Your task to perform on an android device: Open Google Chrome Image 0: 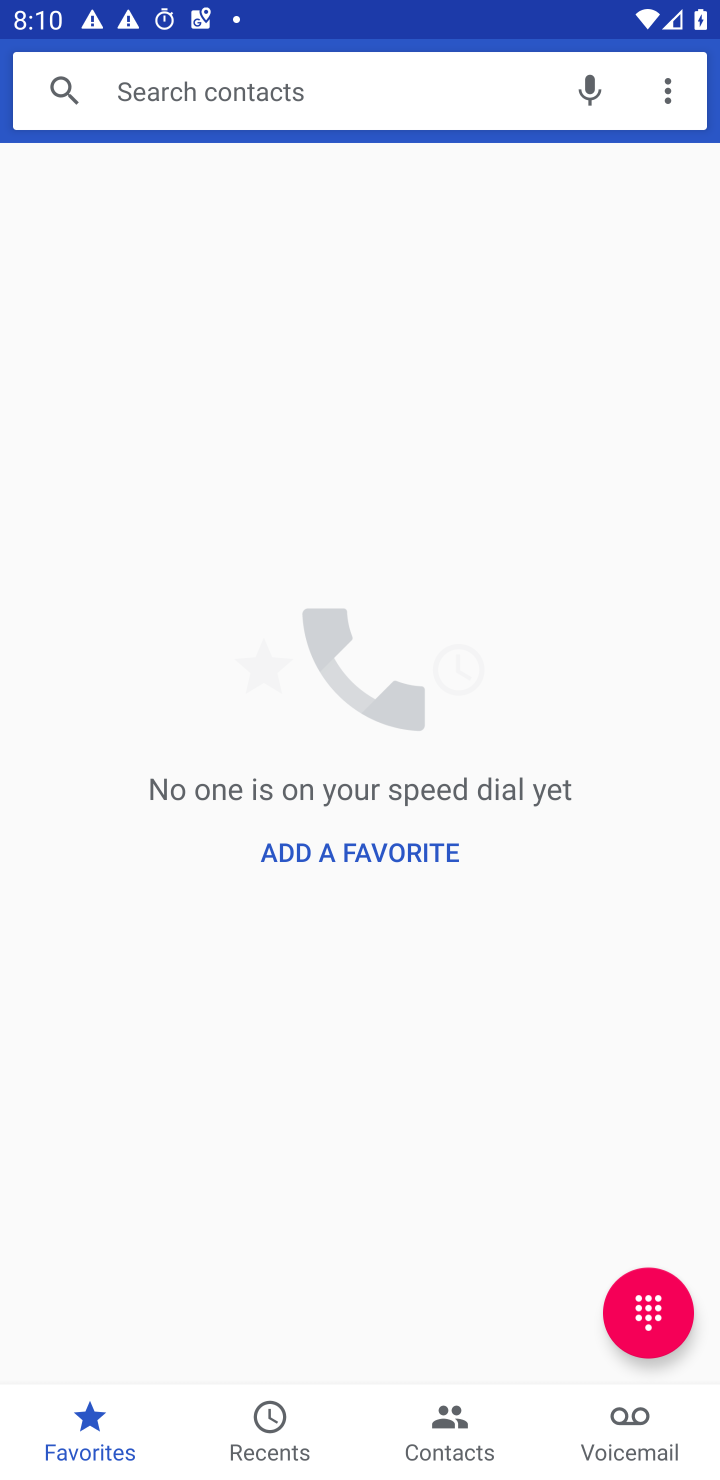
Step 0: click (486, 1402)
Your task to perform on an android device: Open Google Chrome Image 1: 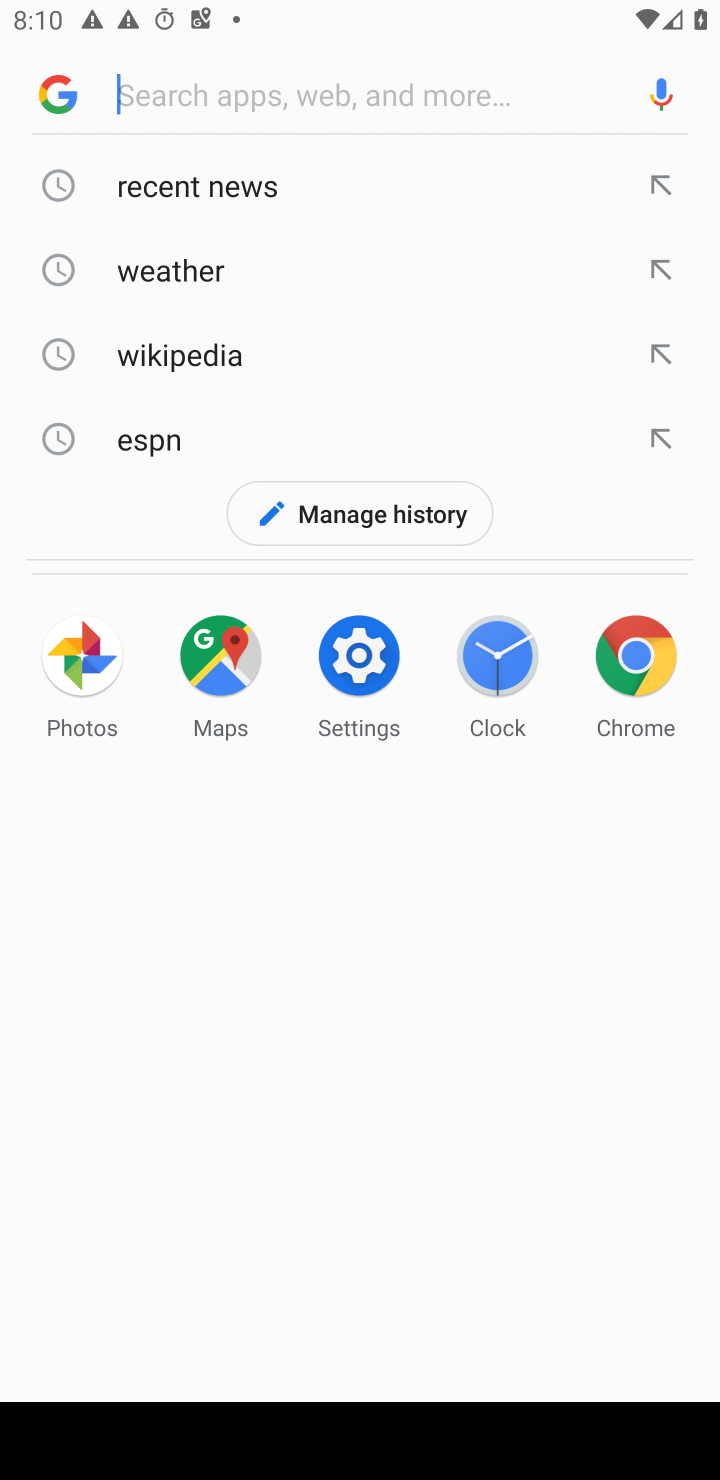
Step 1: press home button
Your task to perform on an android device: Open Google Chrome Image 2: 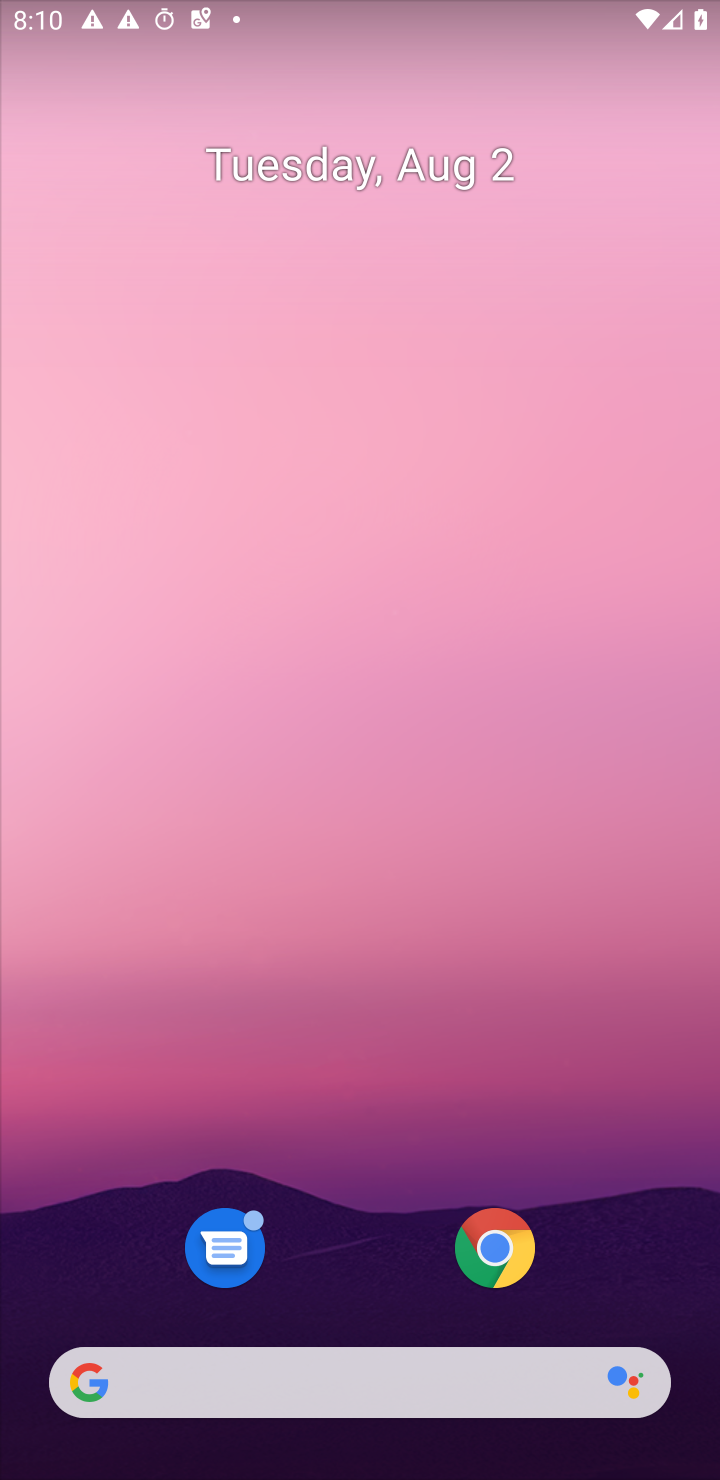
Step 2: drag from (336, 1289) to (509, 69)
Your task to perform on an android device: Open Google Chrome Image 3: 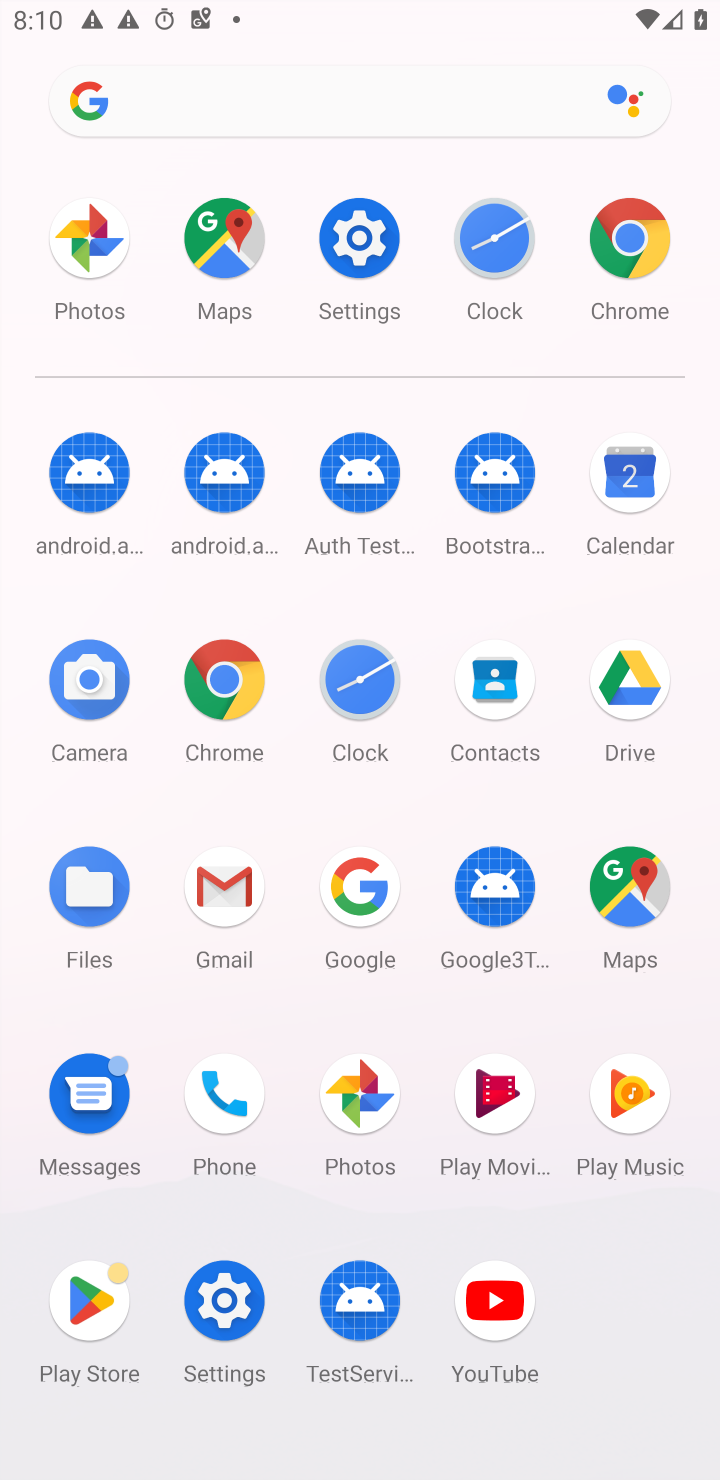
Step 3: drag from (283, 1115) to (711, 339)
Your task to perform on an android device: Open Google Chrome Image 4: 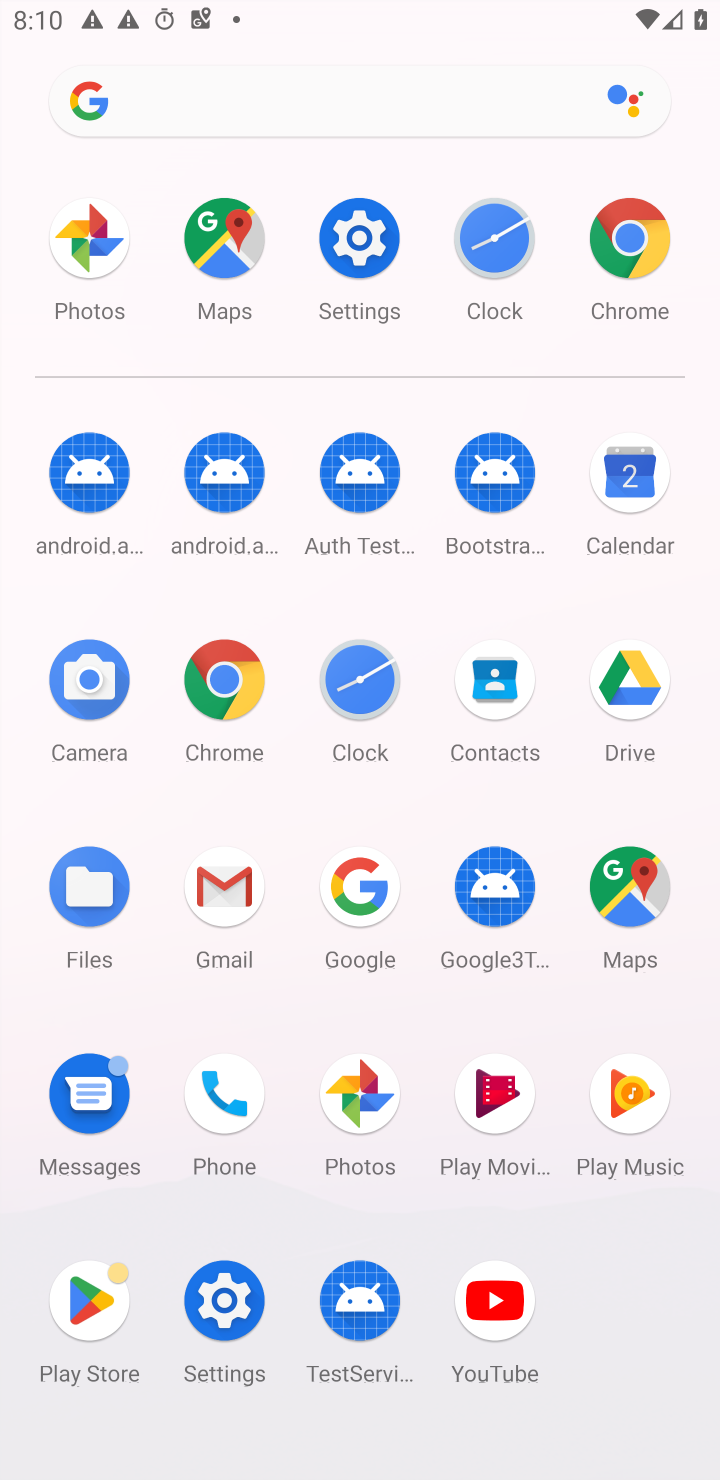
Step 4: click (636, 230)
Your task to perform on an android device: Open Google Chrome Image 5: 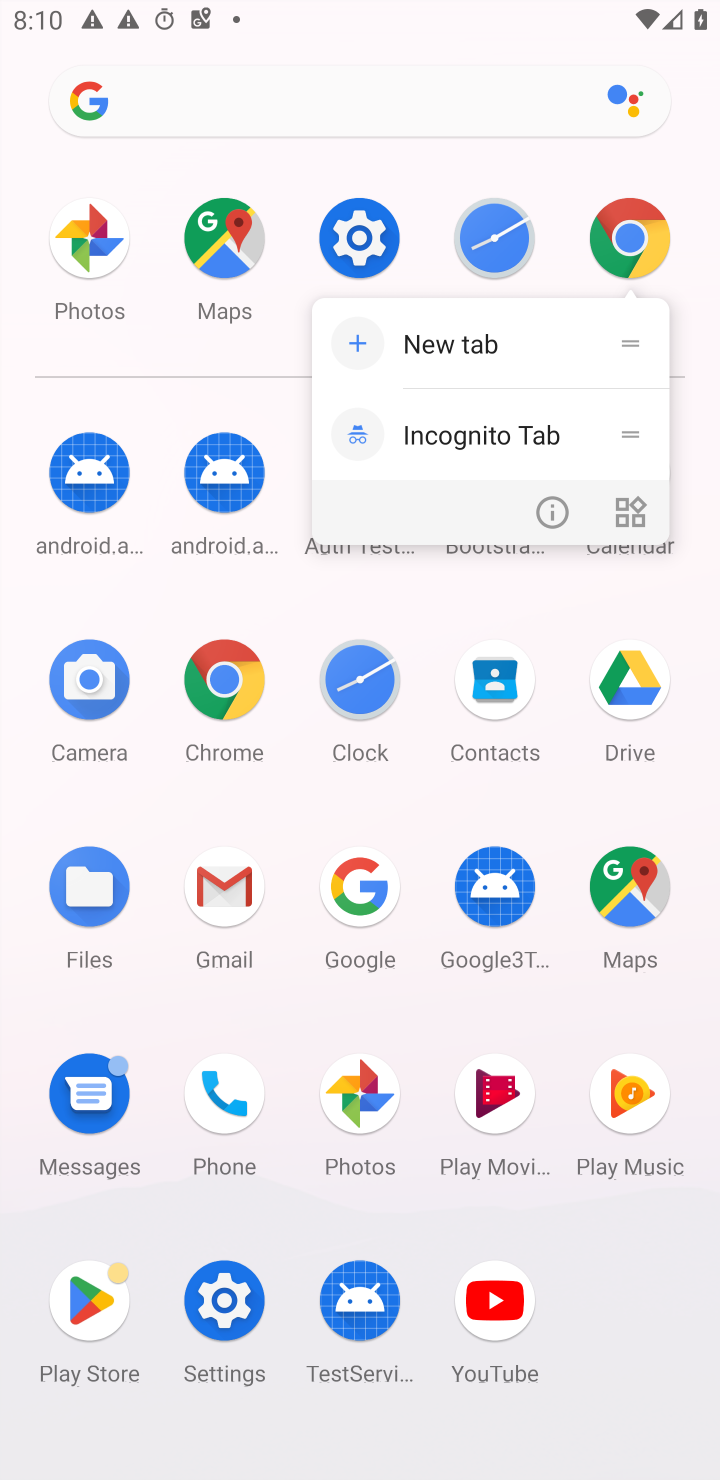
Step 5: click (537, 504)
Your task to perform on an android device: Open Google Chrome Image 6: 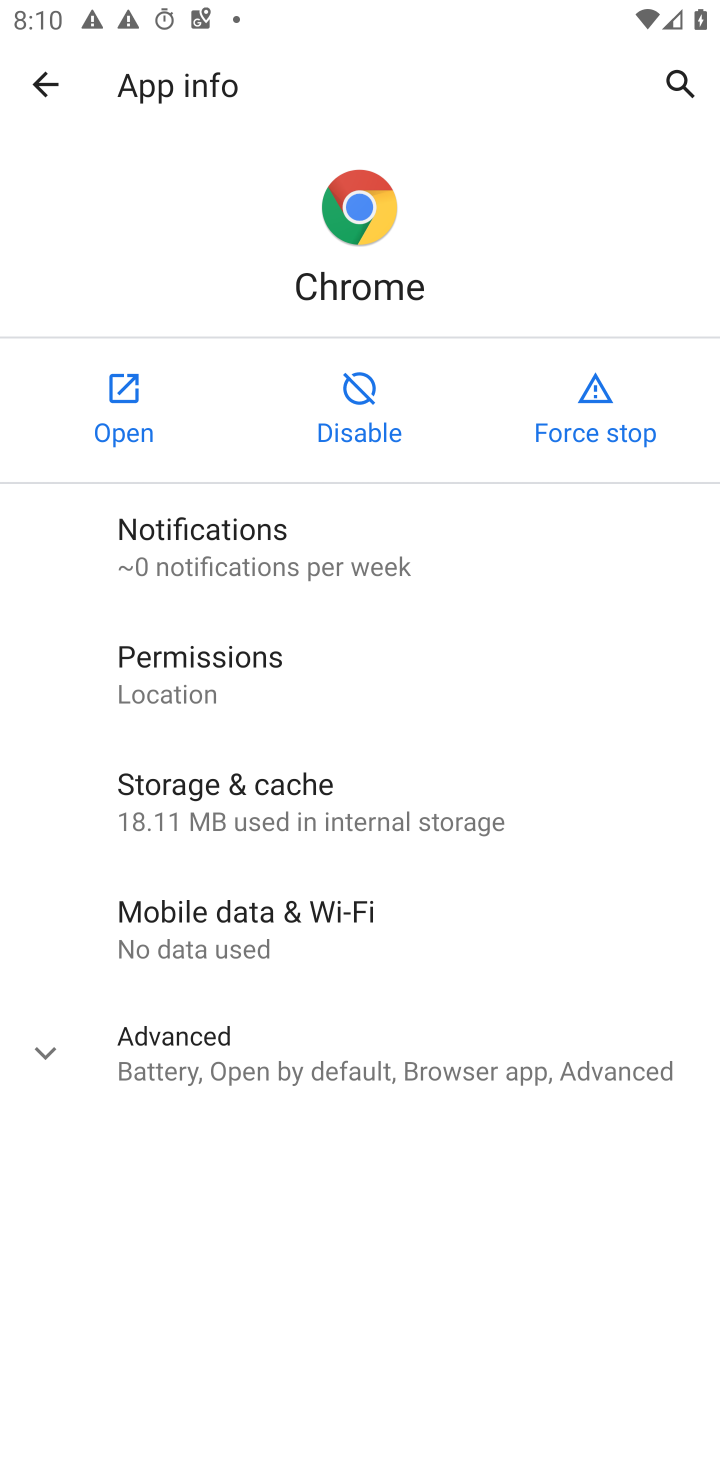
Step 6: click (113, 385)
Your task to perform on an android device: Open Google Chrome Image 7: 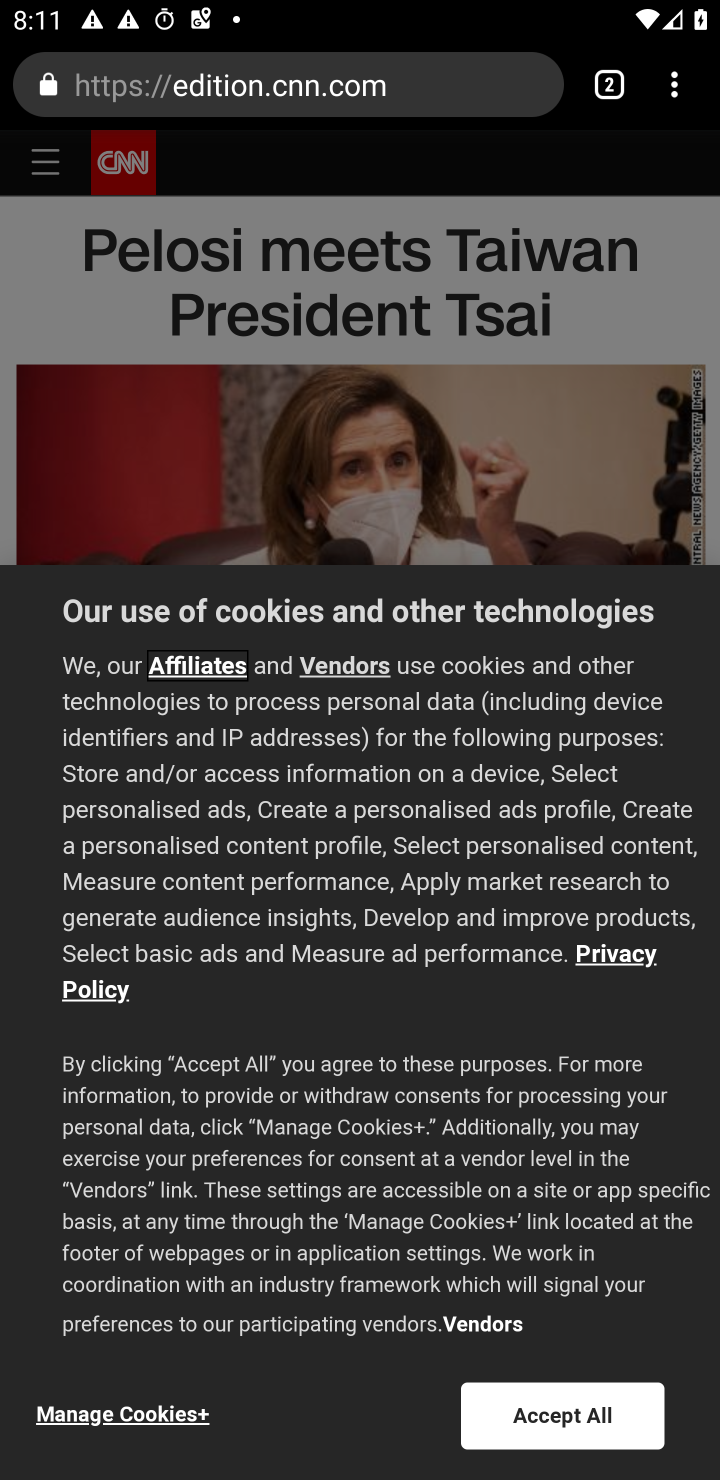
Step 7: task complete